Your task to perform on an android device: toggle translation in the chrome app Image 0: 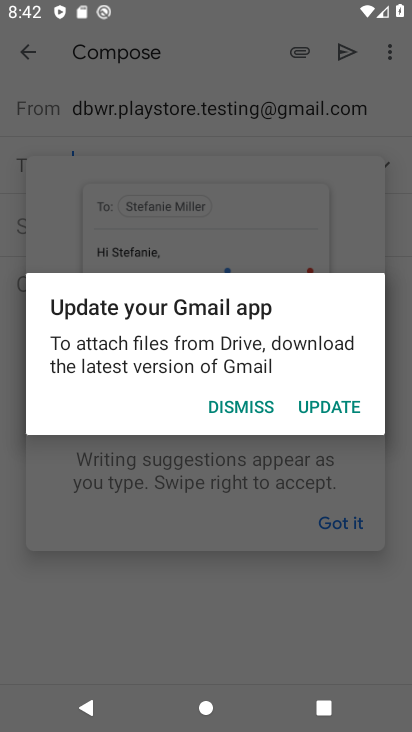
Step 0: press home button
Your task to perform on an android device: toggle translation in the chrome app Image 1: 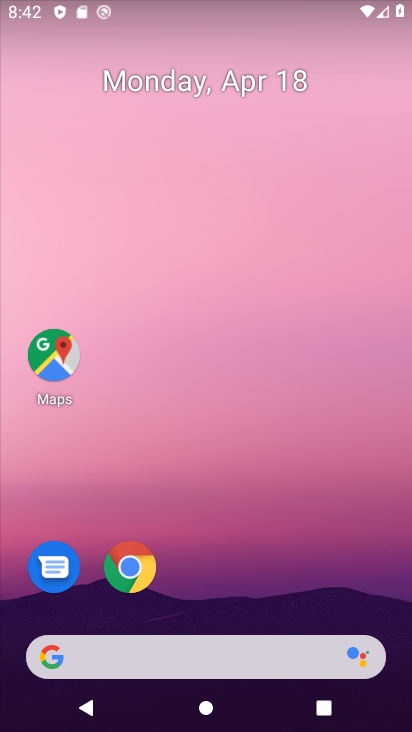
Step 1: click (133, 571)
Your task to perform on an android device: toggle translation in the chrome app Image 2: 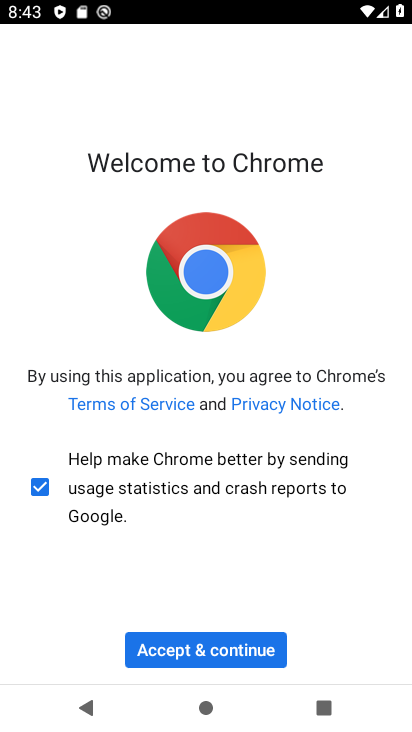
Step 2: click (192, 646)
Your task to perform on an android device: toggle translation in the chrome app Image 3: 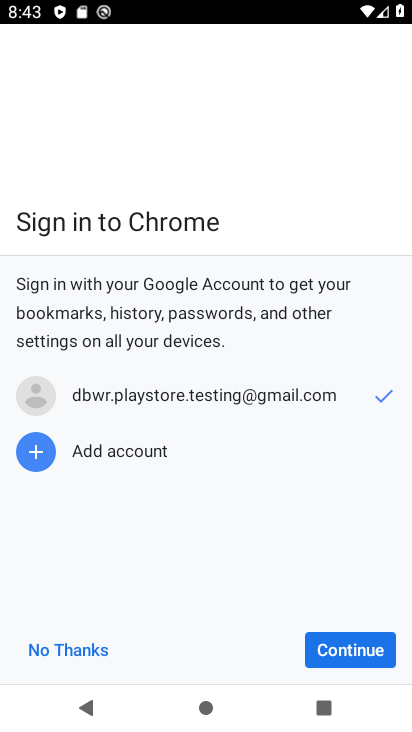
Step 3: click (328, 653)
Your task to perform on an android device: toggle translation in the chrome app Image 4: 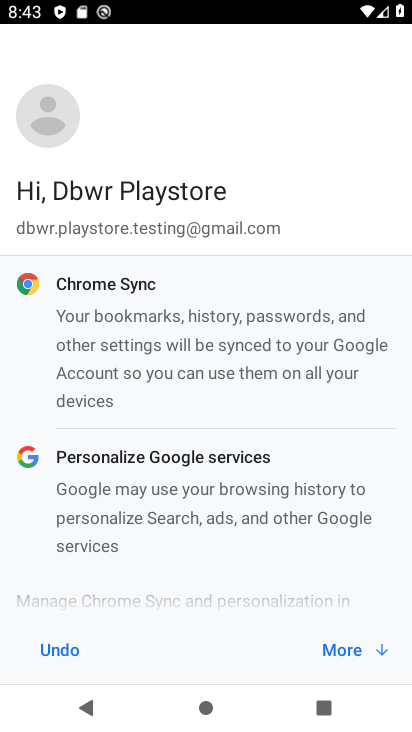
Step 4: click (328, 653)
Your task to perform on an android device: toggle translation in the chrome app Image 5: 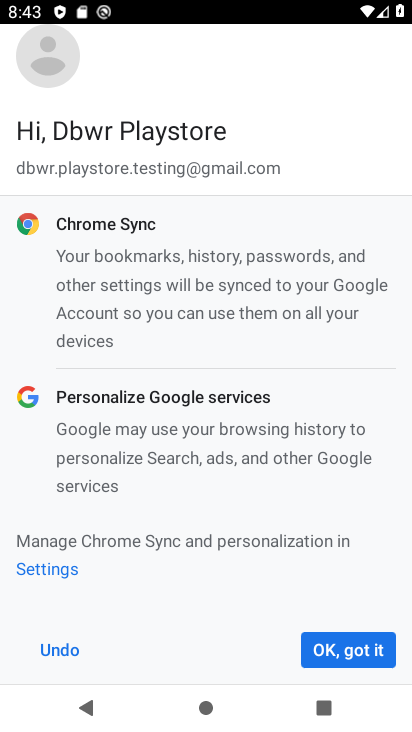
Step 5: click (328, 653)
Your task to perform on an android device: toggle translation in the chrome app Image 6: 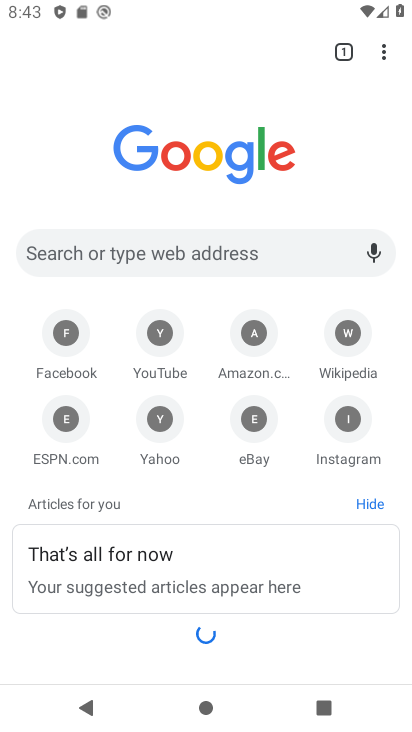
Step 6: click (383, 48)
Your task to perform on an android device: toggle translation in the chrome app Image 7: 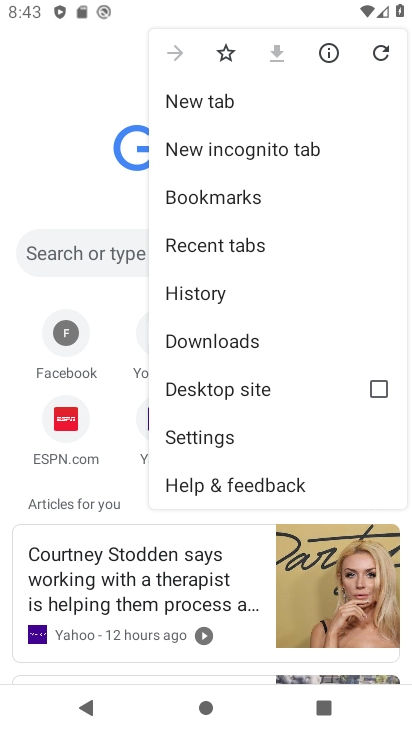
Step 7: click (217, 441)
Your task to perform on an android device: toggle translation in the chrome app Image 8: 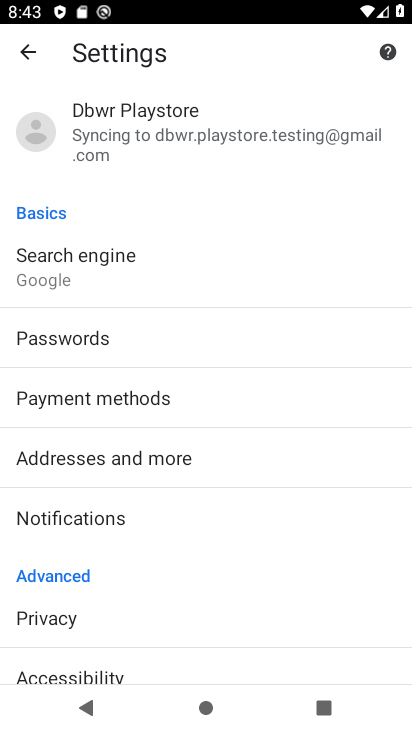
Step 8: drag from (126, 565) to (180, 190)
Your task to perform on an android device: toggle translation in the chrome app Image 9: 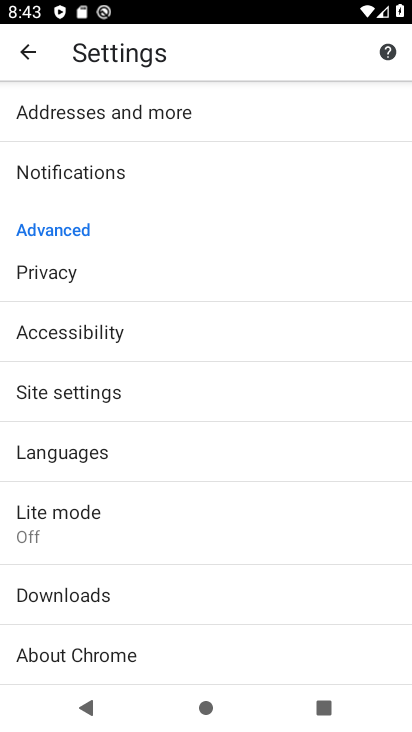
Step 9: drag from (114, 582) to (121, 455)
Your task to perform on an android device: toggle translation in the chrome app Image 10: 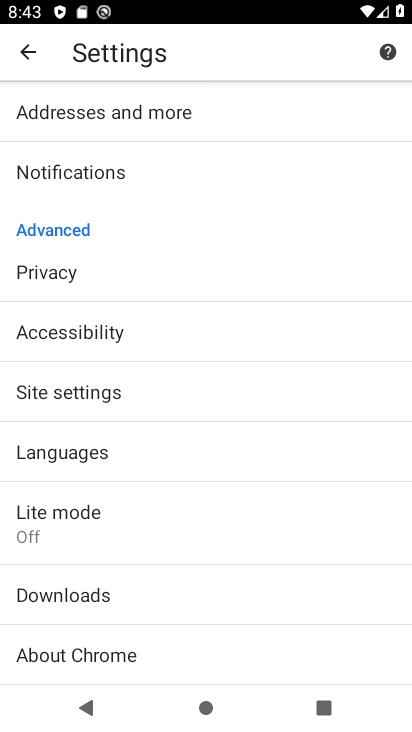
Step 10: click (121, 455)
Your task to perform on an android device: toggle translation in the chrome app Image 11: 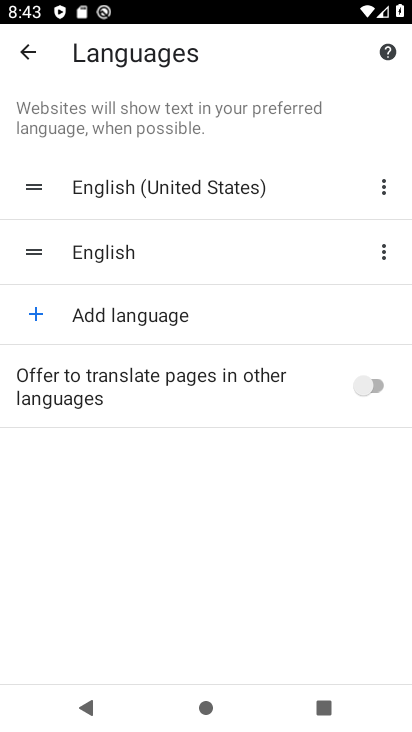
Step 11: click (377, 381)
Your task to perform on an android device: toggle translation in the chrome app Image 12: 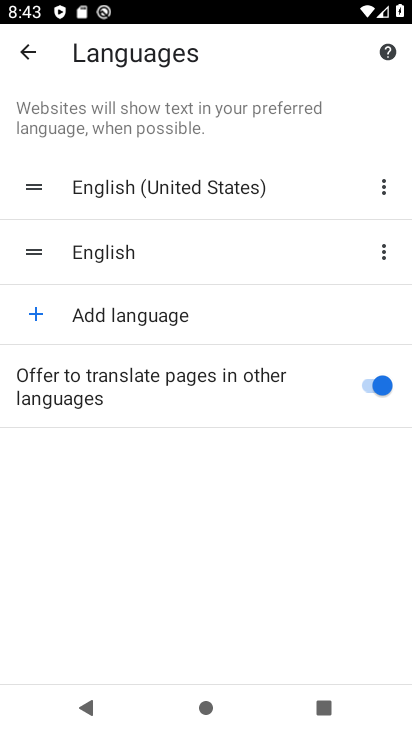
Step 12: task complete